Your task to perform on an android device: change the clock display to show seconds Image 0: 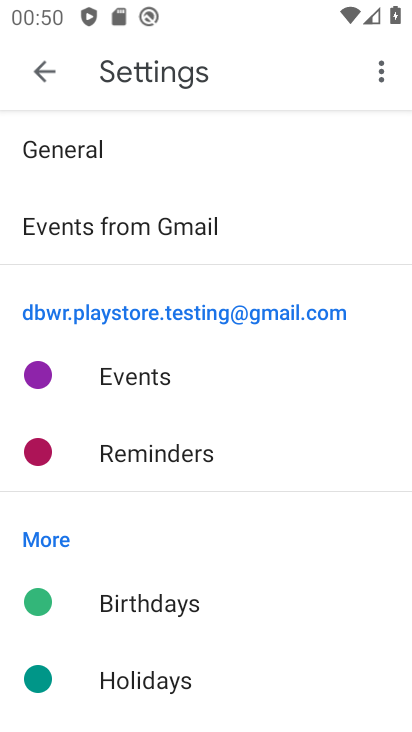
Step 0: press home button
Your task to perform on an android device: change the clock display to show seconds Image 1: 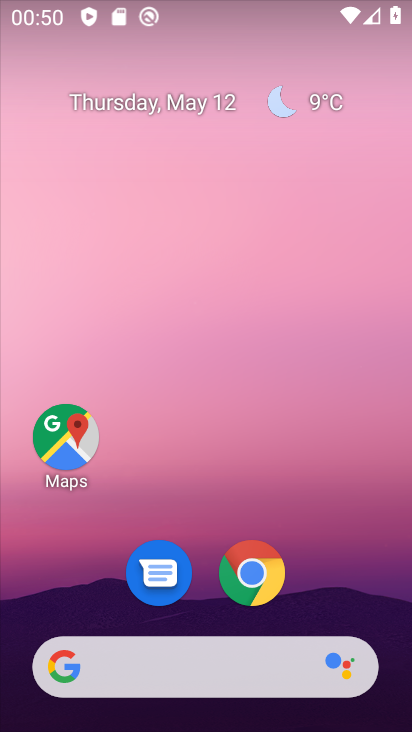
Step 1: drag from (194, 598) to (252, 0)
Your task to perform on an android device: change the clock display to show seconds Image 2: 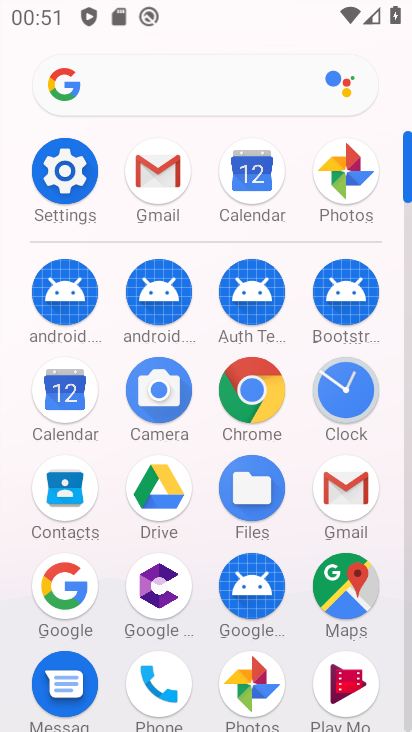
Step 2: click (363, 402)
Your task to perform on an android device: change the clock display to show seconds Image 3: 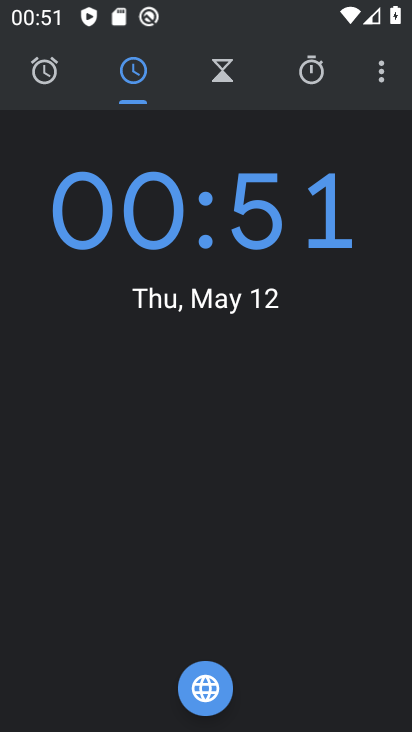
Step 3: click (381, 70)
Your task to perform on an android device: change the clock display to show seconds Image 4: 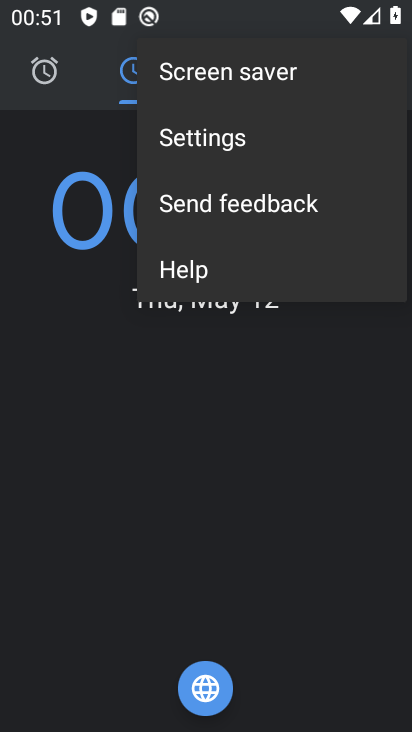
Step 4: click (208, 150)
Your task to perform on an android device: change the clock display to show seconds Image 5: 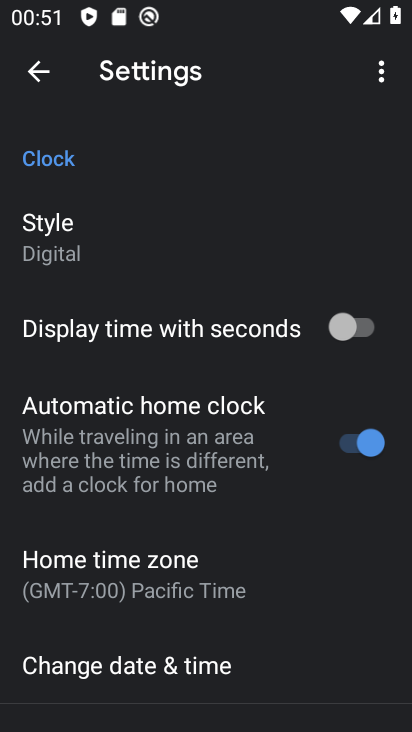
Step 5: click (298, 319)
Your task to perform on an android device: change the clock display to show seconds Image 6: 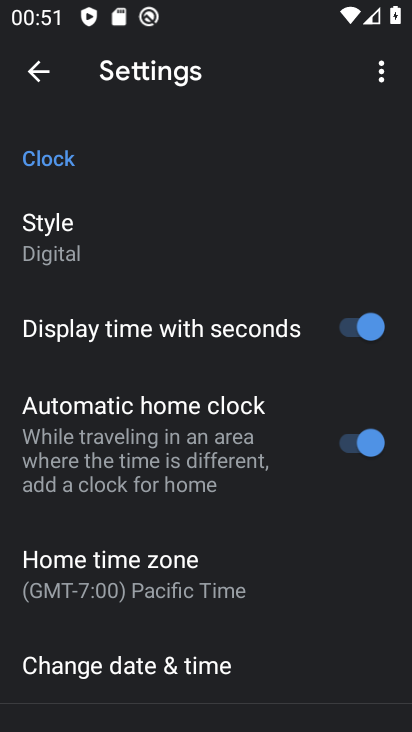
Step 6: task complete